Your task to perform on an android device: Open calendar and show me the fourth week of next month Image 0: 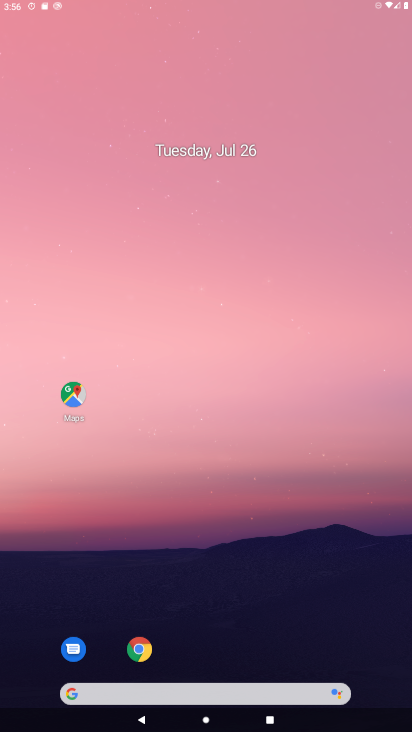
Step 0: click (225, 88)
Your task to perform on an android device: Open calendar and show me the fourth week of next month Image 1: 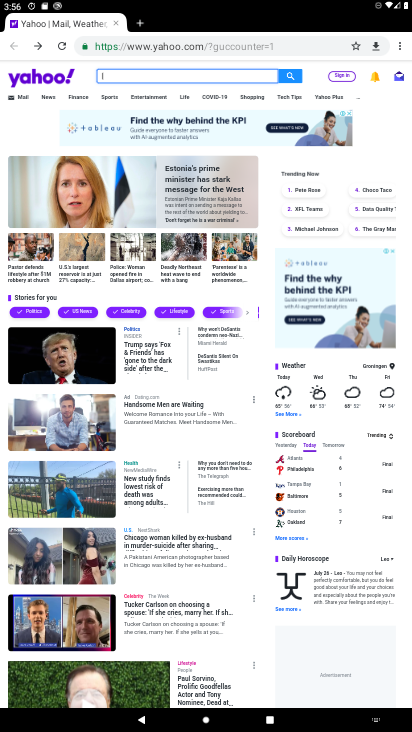
Step 1: press home button
Your task to perform on an android device: Open calendar and show me the fourth week of next month Image 2: 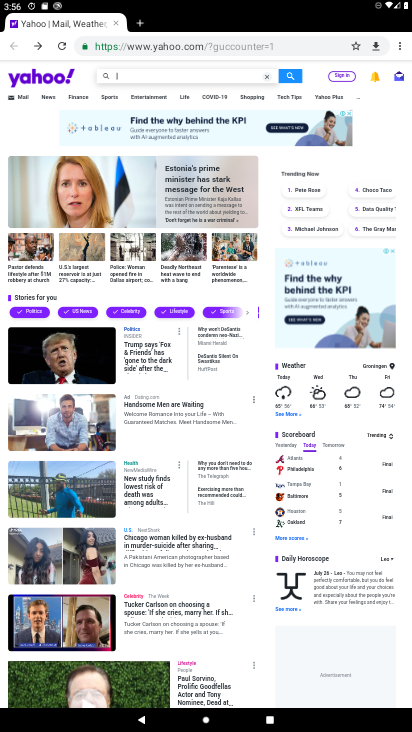
Step 2: click (253, 0)
Your task to perform on an android device: Open calendar and show me the fourth week of next month Image 3: 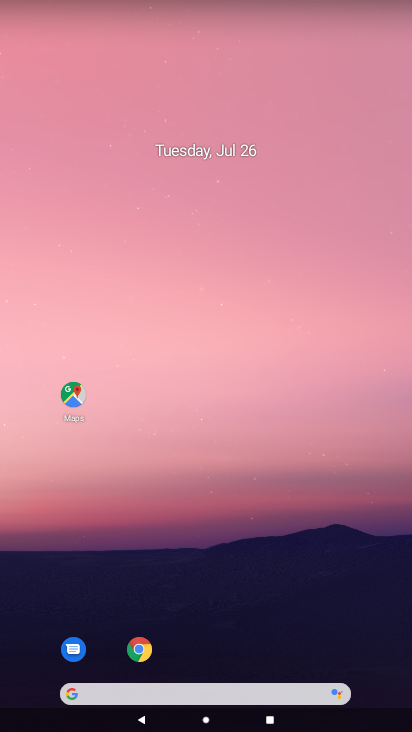
Step 3: drag from (371, 612) to (205, 33)
Your task to perform on an android device: Open calendar and show me the fourth week of next month Image 4: 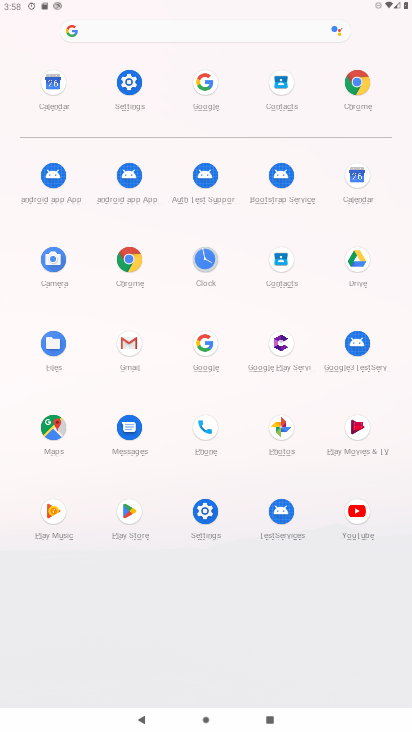
Step 4: click (355, 178)
Your task to perform on an android device: Open calendar and show me the fourth week of next month Image 5: 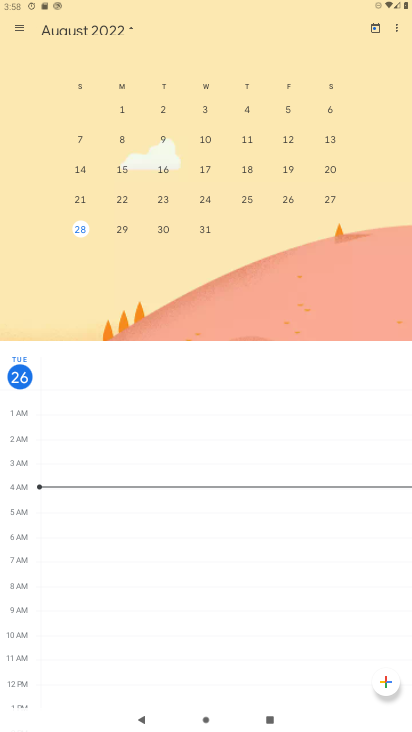
Step 5: drag from (366, 103) to (10, 187)
Your task to perform on an android device: Open calendar and show me the fourth week of next month Image 6: 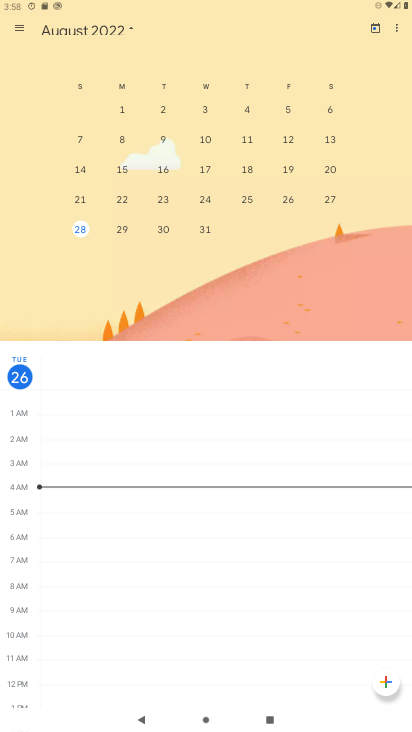
Step 6: drag from (334, 150) to (63, 106)
Your task to perform on an android device: Open calendar and show me the fourth week of next month Image 7: 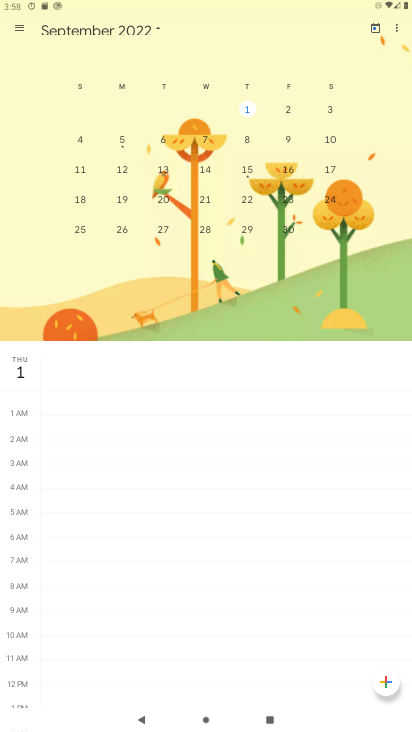
Step 7: click (76, 229)
Your task to perform on an android device: Open calendar and show me the fourth week of next month Image 8: 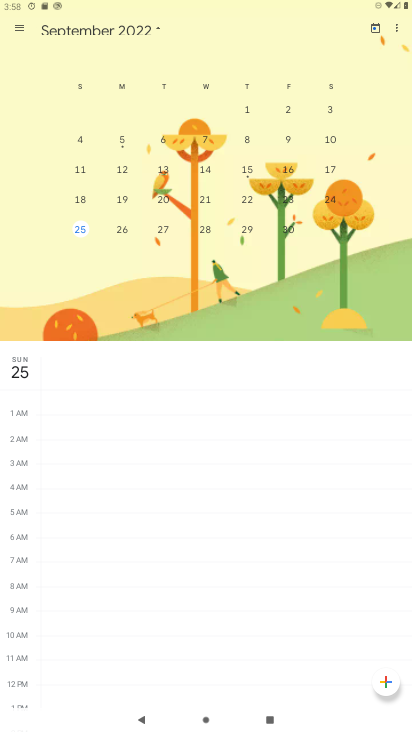
Step 8: task complete